Your task to perform on an android device: open chrome privacy settings Image 0: 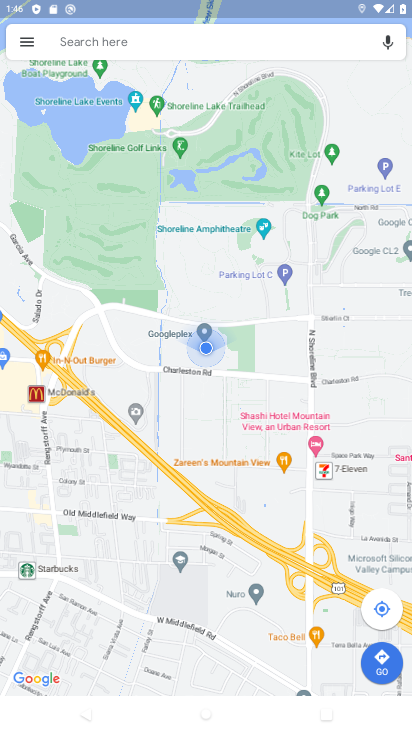
Step 0: press back button
Your task to perform on an android device: open chrome privacy settings Image 1: 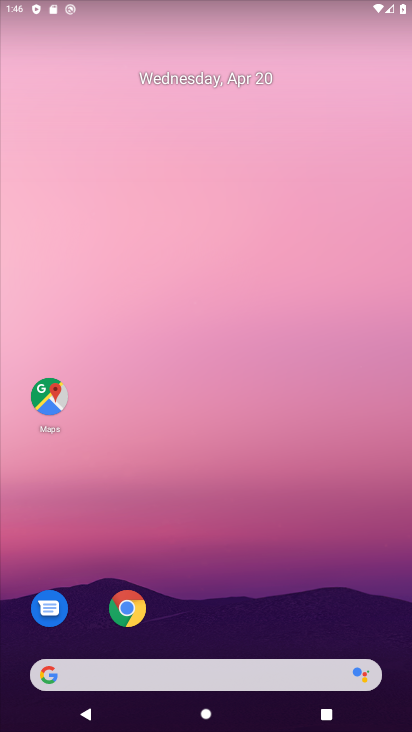
Step 1: drag from (229, 592) to (151, 15)
Your task to perform on an android device: open chrome privacy settings Image 2: 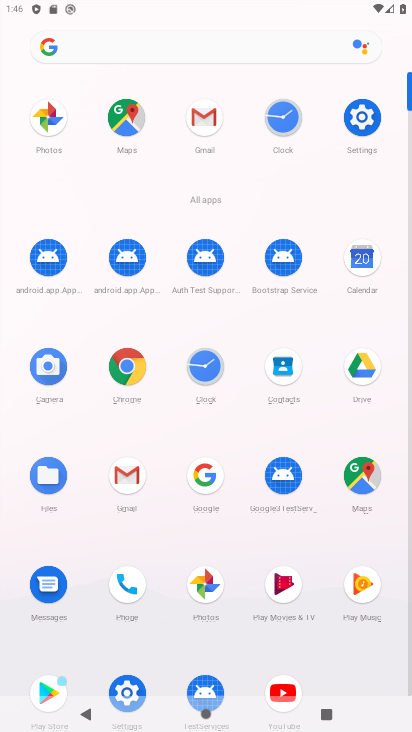
Step 2: click (114, 380)
Your task to perform on an android device: open chrome privacy settings Image 3: 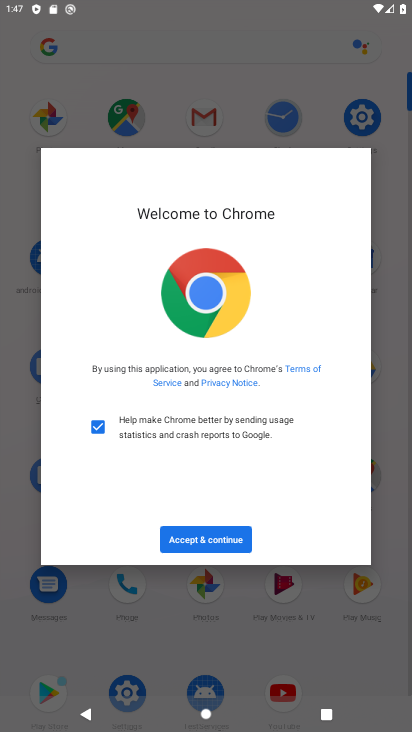
Step 3: click (220, 545)
Your task to perform on an android device: open chrome privacy settings Image 4: 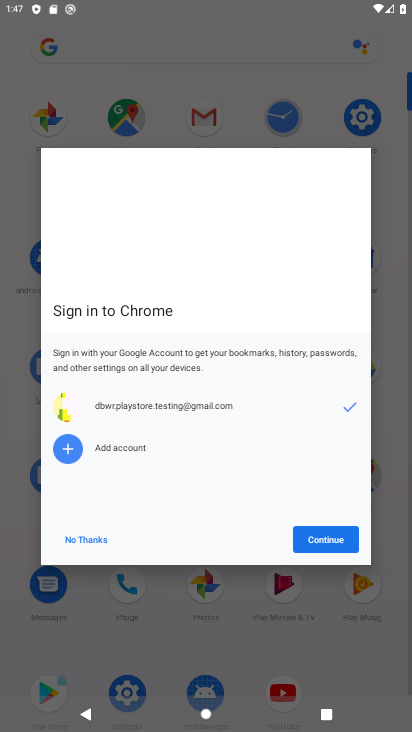
Step 4: click (317, 537)
Your task to perform on an android device: open chrome privacy settings Image 5: 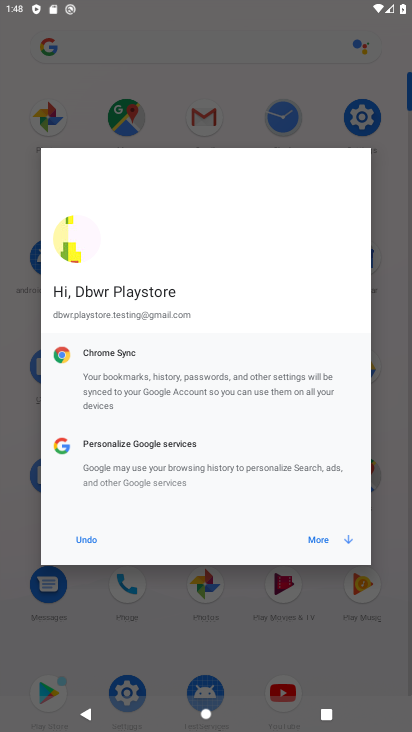
Step 5: click (321, 540)
Your task to perform on an android device: open chrome privacy settings Image 6: 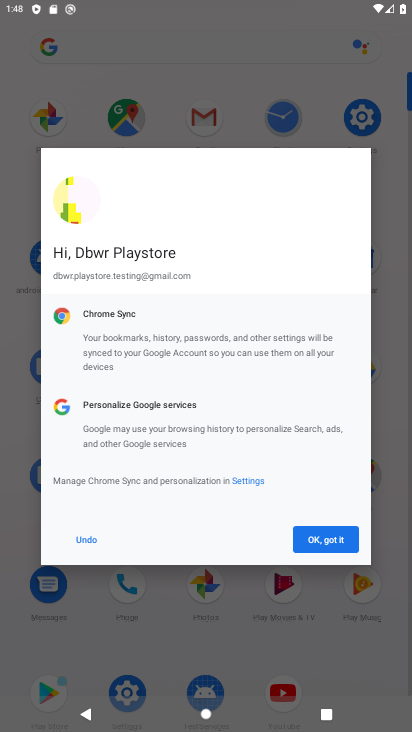
Step 6: click (321, 540)
Your task to perform on an android device: open chrome privacy settings Image 7: 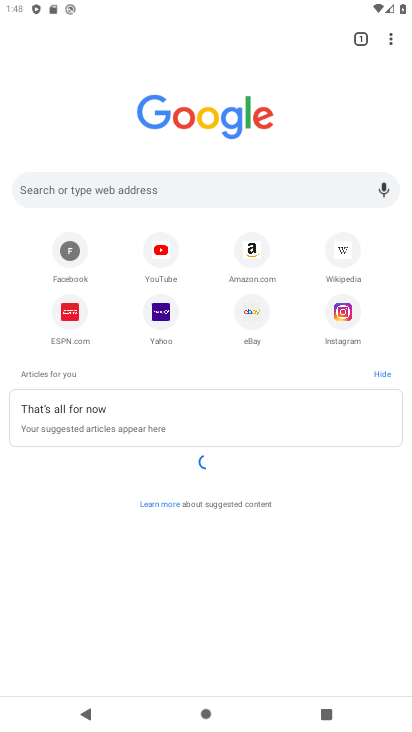
Step 7: click (393, 43)
Your task to perform on an android device: open chrome privacy settings Image 8: 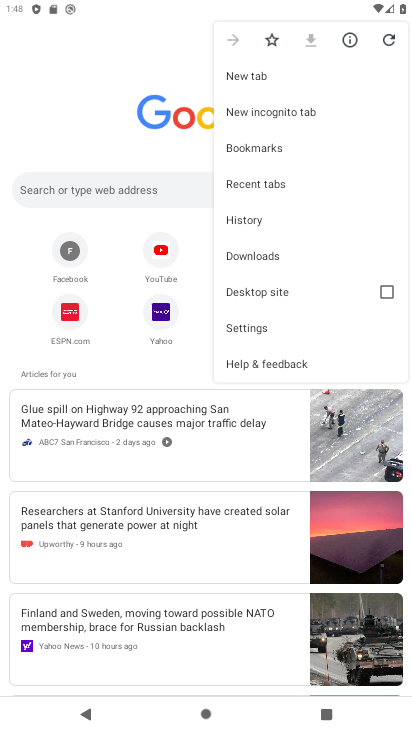
Step 8: click (268, 326)
Your task to perform on an android device: open chrome privacy settings Image 9: 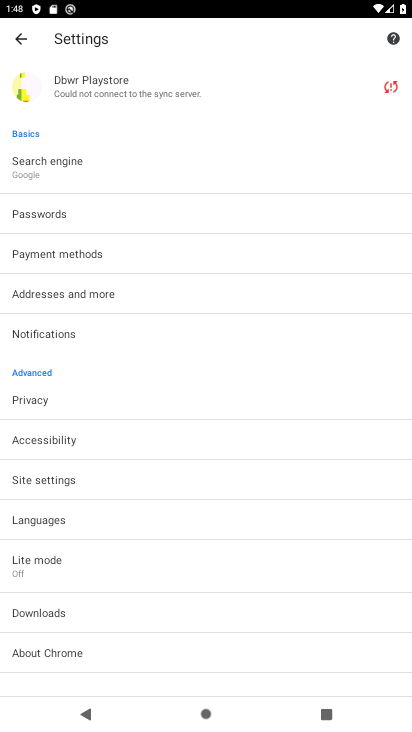
Step 9: click (115, 411)
Your task to perform on an android device: open chrome privacy settings Image 10: 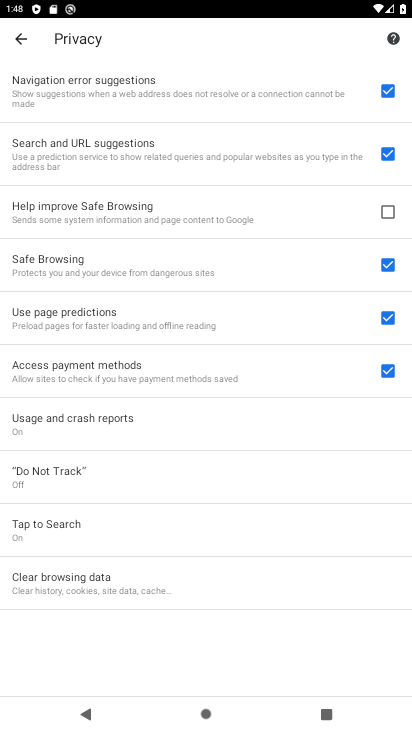
Step 10: task complete